Your task to perform on an android device: change timer sound Image 0: 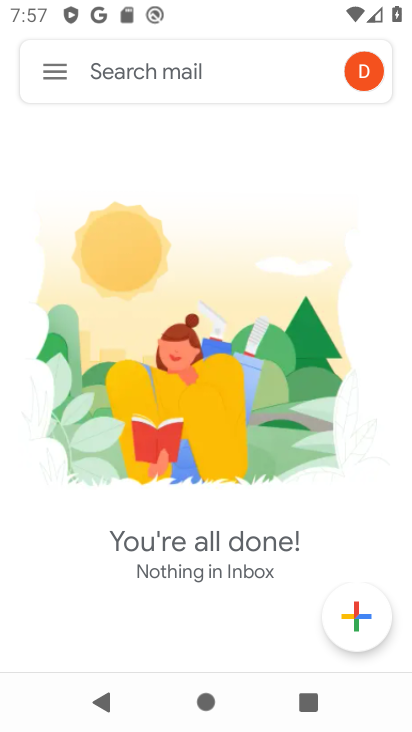
Step 0: press home button
Your task to perform on an android device: change timer sound Image 1: 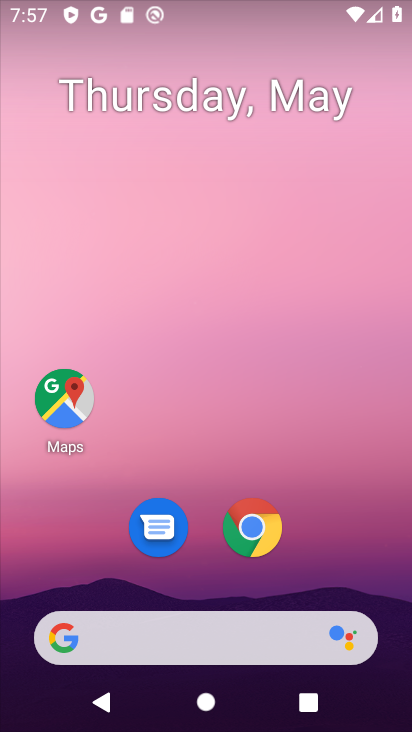
Step 1: drag from (71, 557) to (341, 145)
Your task to perform on an android device: change timer sound Image 2: 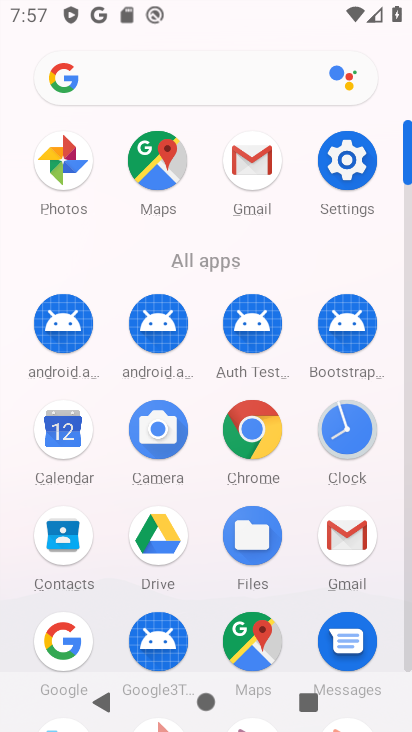
Step 2: click (325, 427)
Your task to perform on an android device: change timer sound Image 3: 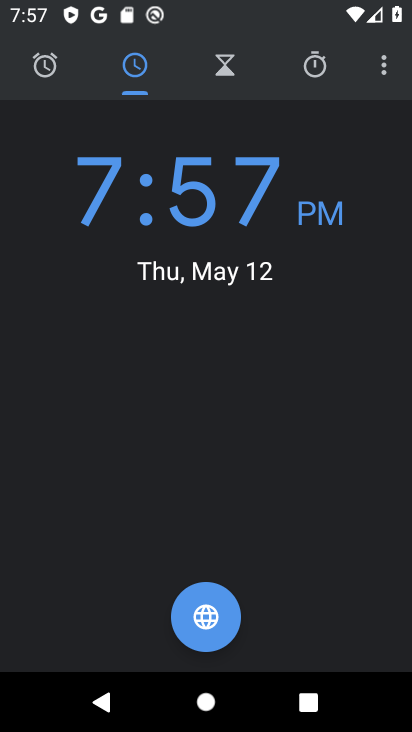
Step 3: click (391, 71)
Your task to perform on an android device: change timer sound Image 4: 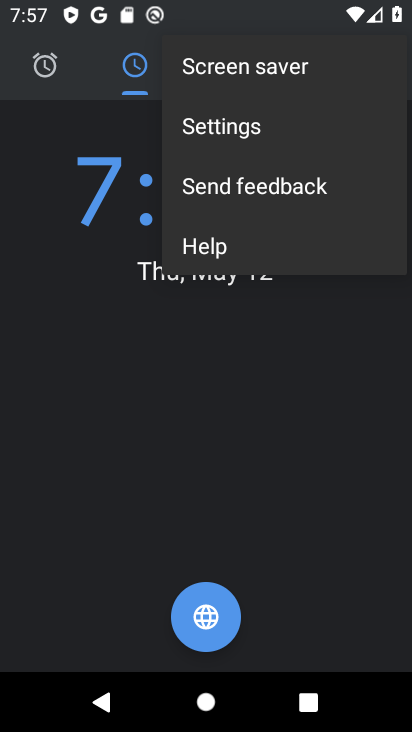
Step 4: click (236, 130)
Your task to perform on an android device: change timer sound Image 5: 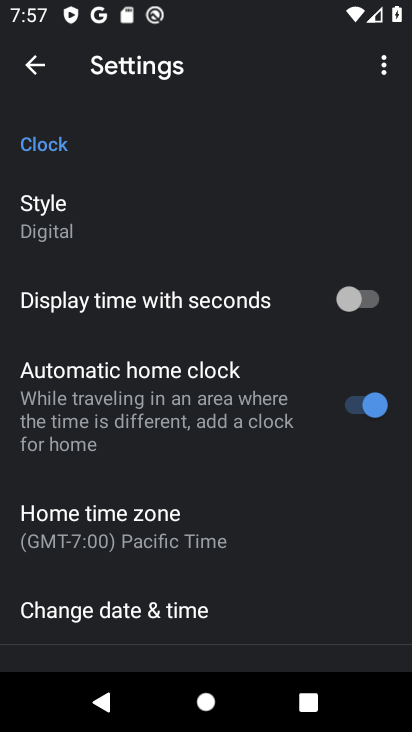
Step 5: drag from (80, 608) to (130, 185)
Your task to perform on an android device: change timer sound Image 6: 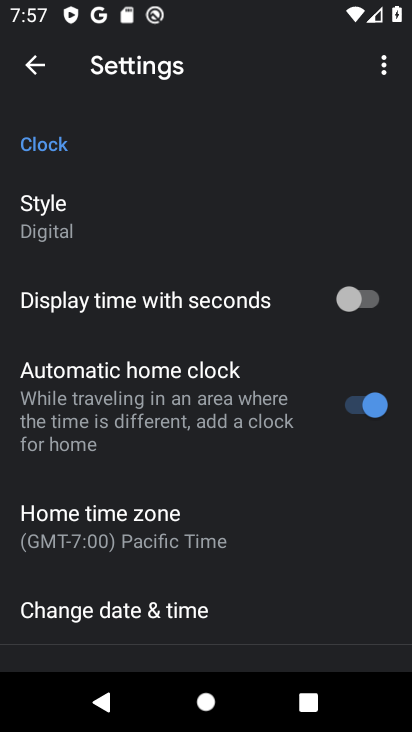
Step 6: drag from (46, 543) to (264, 195)
Your task to perform on an android device: change timer sound Image 7: 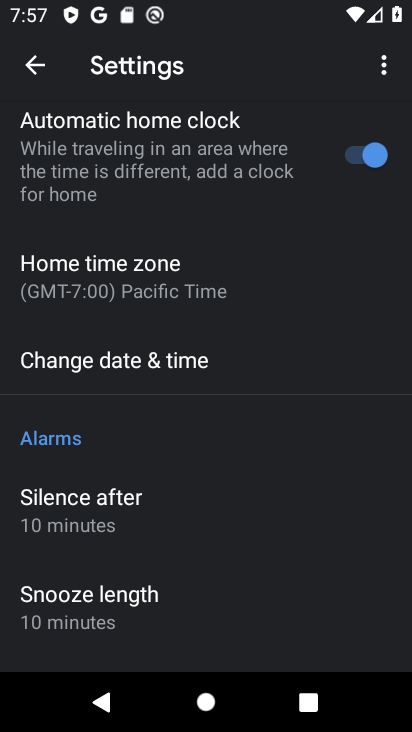
Step 7: drag from (16, 667) to (211, 212)
Your task to perform on an android device: change timer sound Image 8: 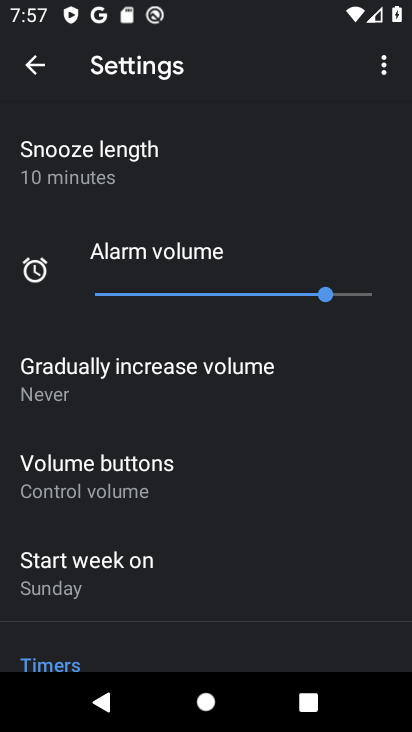
Step 8: drag from (6, 629) to (290, 218)
Your task to perform on an android device: change timer sound Image 9: 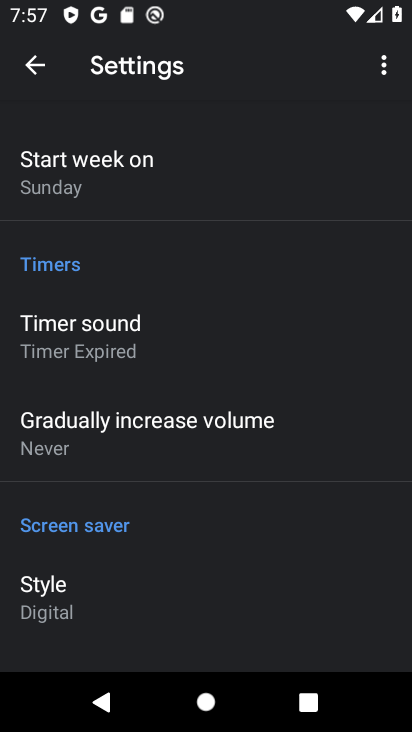
Step 9: click (206, 364)
Your task to perform on an android device: change timer sound Image 10: 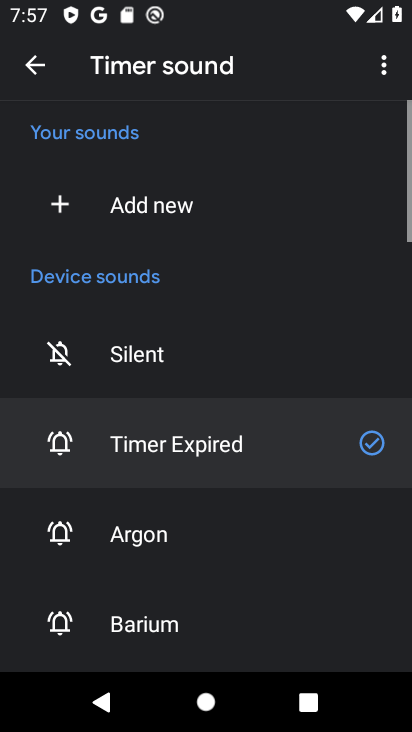
Step 10: click (100, 548)
Your task to perform on an android device: change timer sound Image 11: 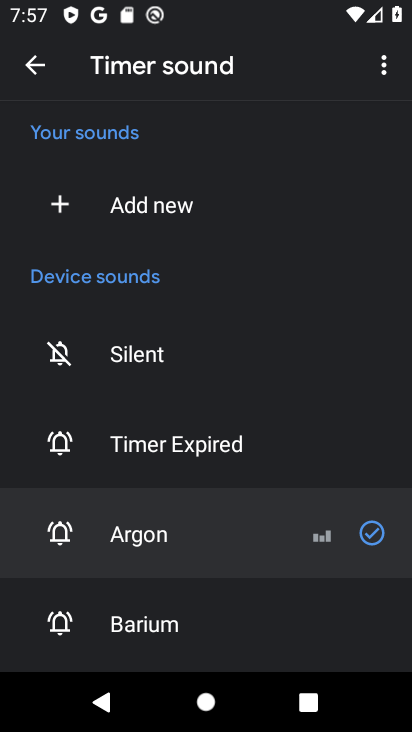
Step 11: task complete